Your task to perform on an android device: turn on data saver in the chrome app Image 0: 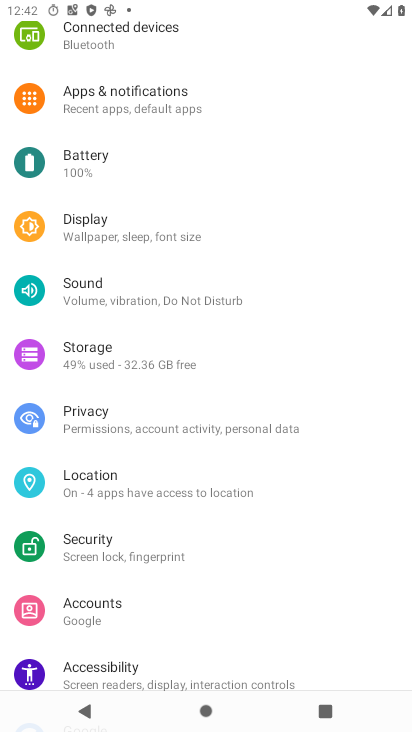
Step 0: press home button
Your task to perform on an android device: turn on data saver in the chrome app Image 1: 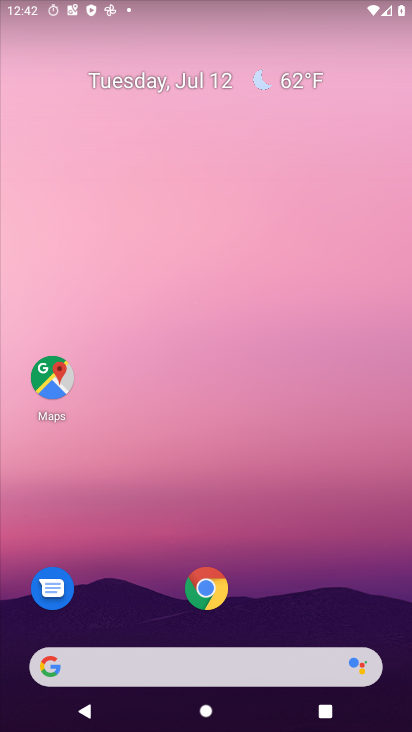
Step 1: click (218, 595)
Your task to perform on an android device: turn on data saver in the chrome app Image 2: 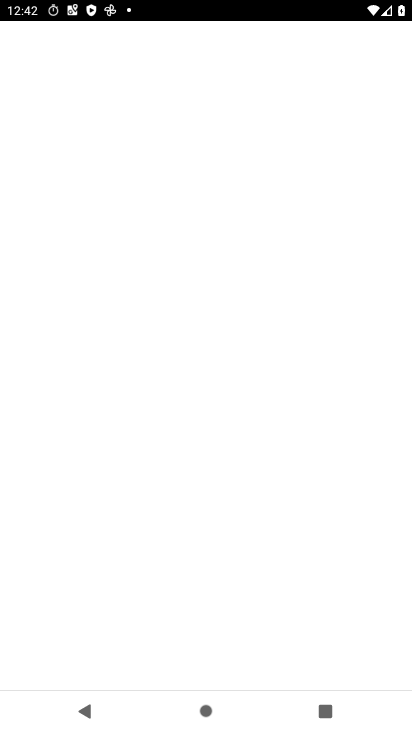
Step 2: click (218, 595)
Your task to perform on an android device: turn on data saver in the chrome app Image 3: 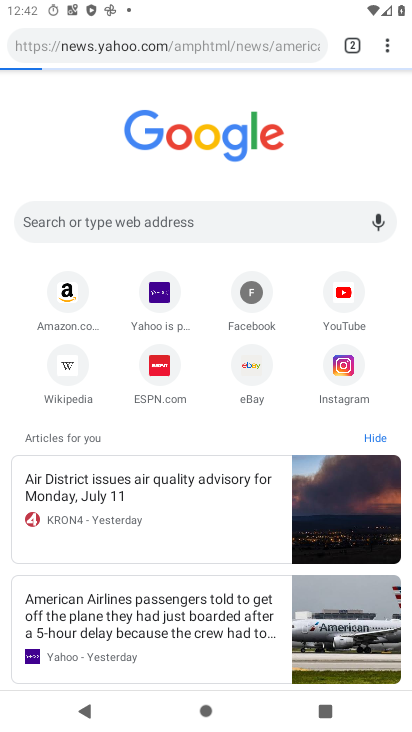
Step 3: click (218, 595)
Your task to perform on an android device: turn on data saver in the chrome app Image 4: 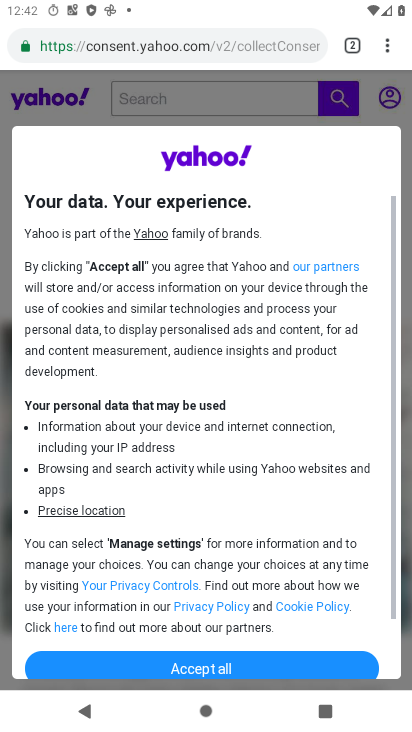
Step 4: click (392, 49)
Your task to perform on an android device: turn on data saver in the chrome app Image 5: 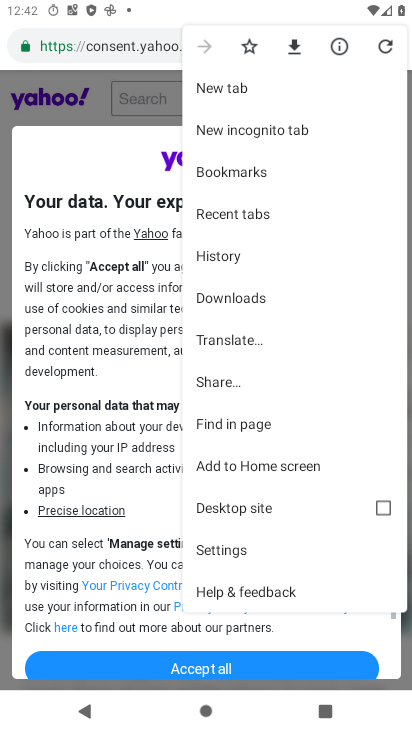
Step 5: click (235, 539)
Your task to perform on an android device: turn on data saver in the chrome app Image 6: 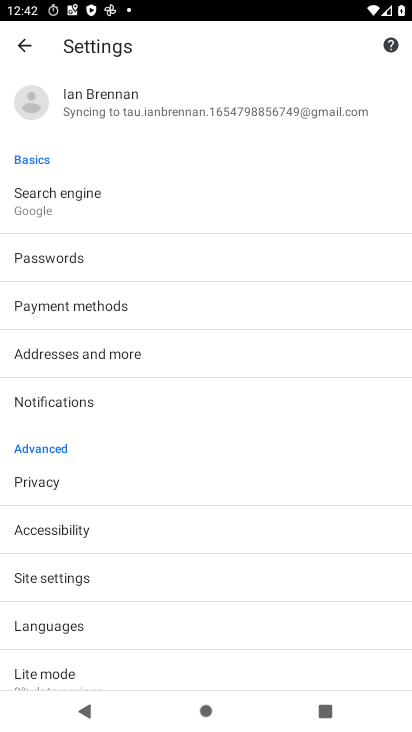
Step 6: click (59, 676)
Your task to perform on an android device: turn on data saver in the chrome app Image 7: 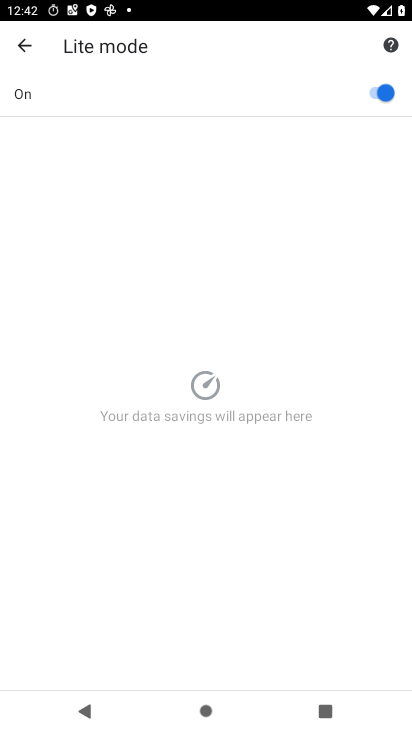
Step 7: task complete